Your task to perform on an android device: change the clock style Image 0: 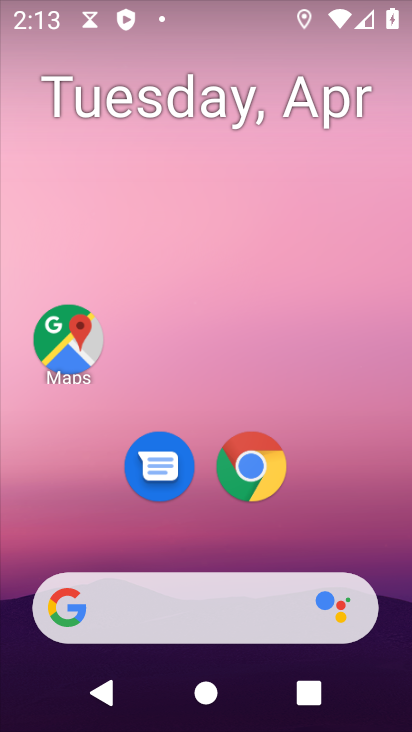
Step 0: drag from (293, 163) to (270, 17)
Your task to perform on an android device: change the clock style Image 1: 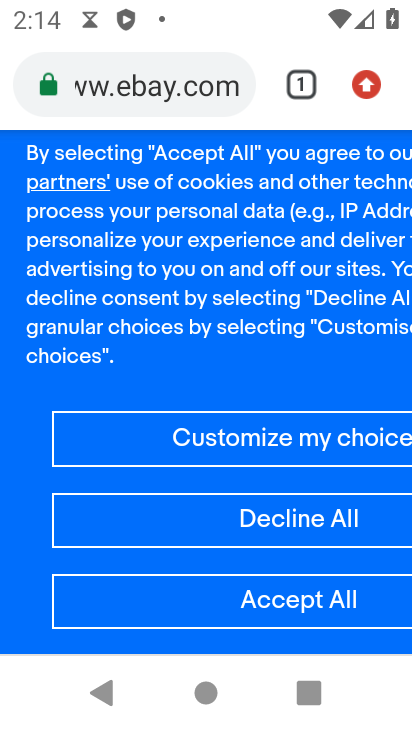
Step 1: press back button
Your task to perform on an android device: change the clock style Image 2: 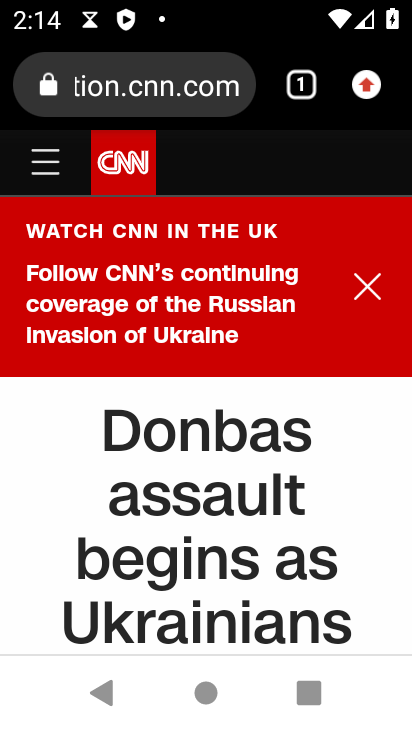
Step 2: press home button
Your task to perform on an android device: change the clock style Image 3: 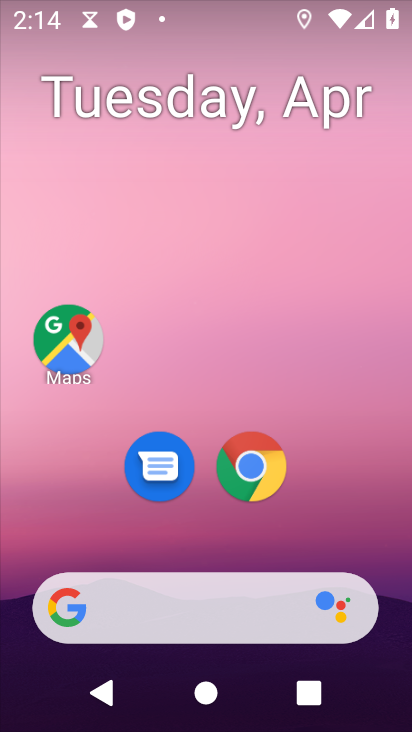
Step 3: drag from (356, 545) to (238, 43)
Your task to perform on an android device: change the clock style Image 4: 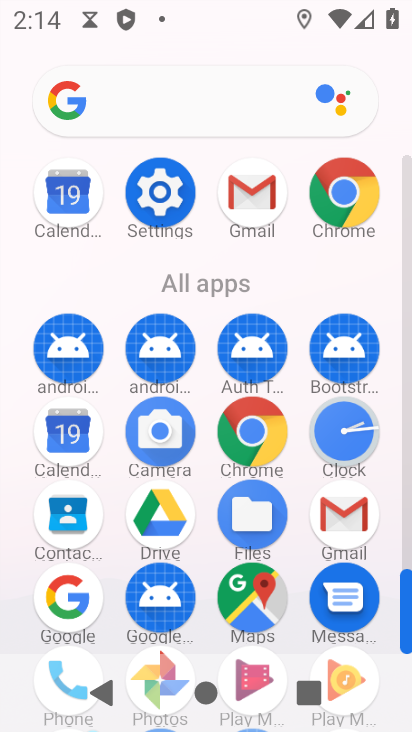
Step 4: click (345, 428)
Your task to perform on an android device: change the clock style Image 5: 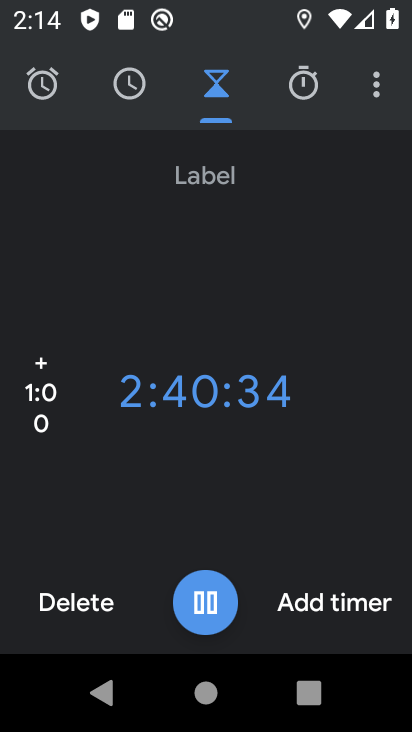
Step 5: click (384, 88)
Your task to perform on an android device: change the clock style Image 6: 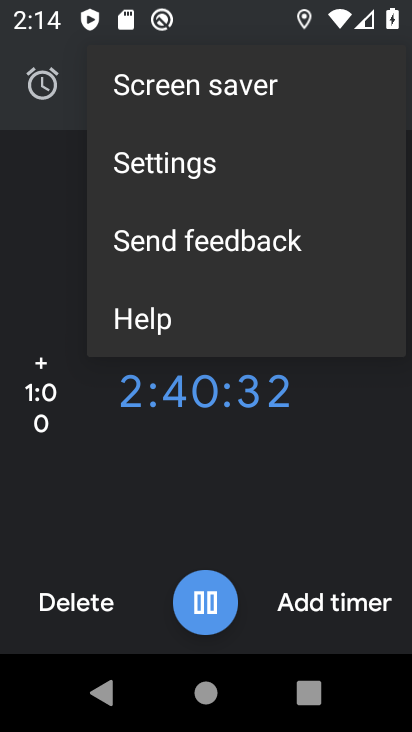
Step 6: click (187, 162)
Your task to perform on an android device: change the clock style Image 7: 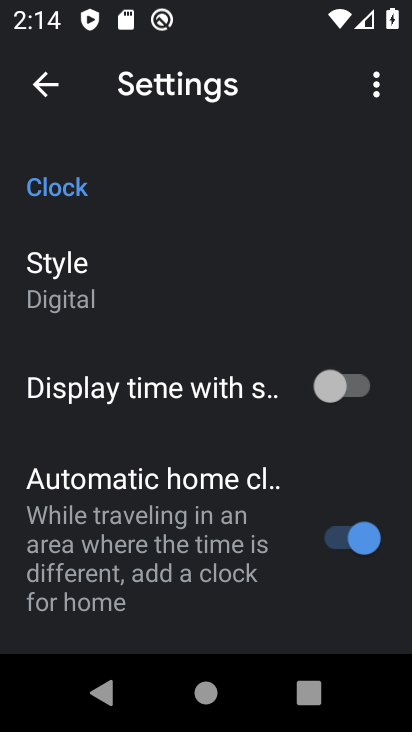
Step 7: click (125, 265)
Your task to perform on an android device: change the clock style Image 8: 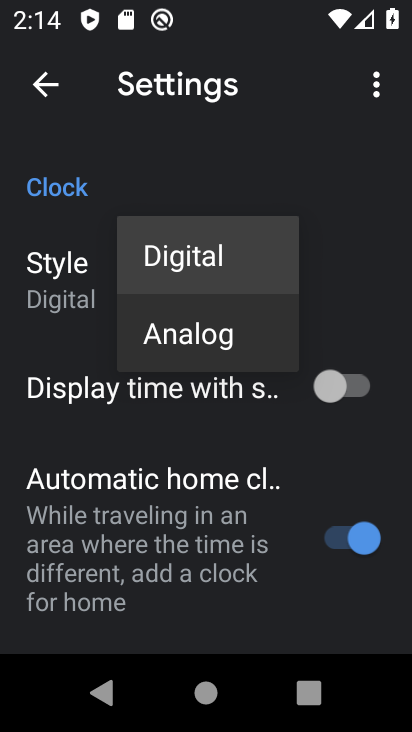
Step 8: click (196, 335)
Your task to perform on an android device: change the clock style Image 9: 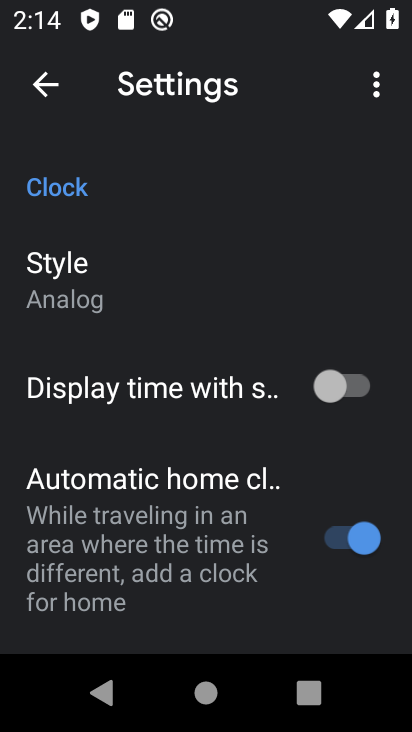
Step 9: task complete